Your task to perform on an android device: manage bookmarks in the chrome app Image 0: 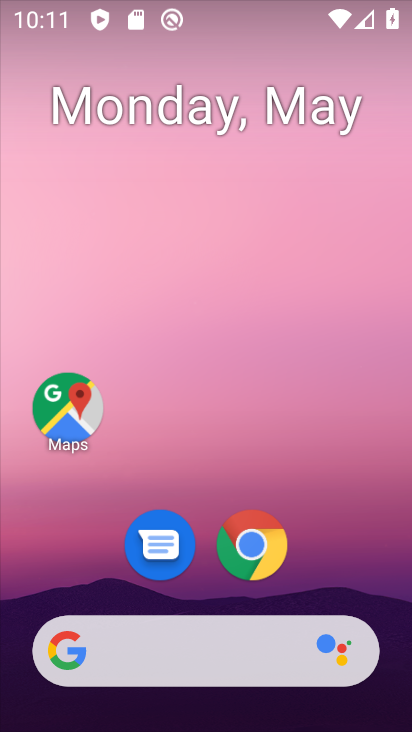
Step 0: click (243, 568)
Your task to perform on an android device: manage bookmarks in the chrome app Image 1: 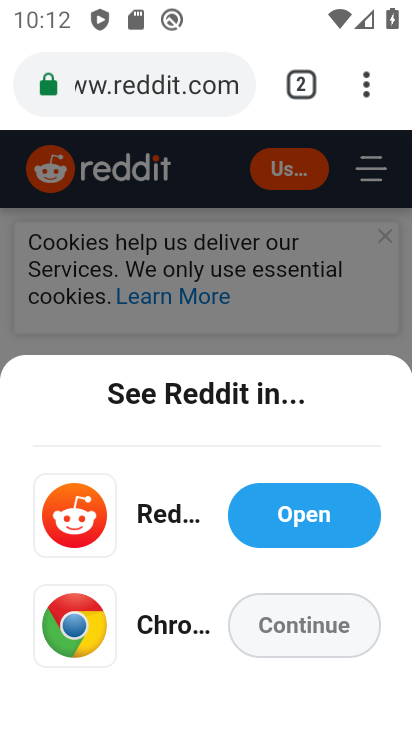
Step 1: click (275, 618)
Your task to perform on an android device: manage bookmarks in the chrome app Image 2: 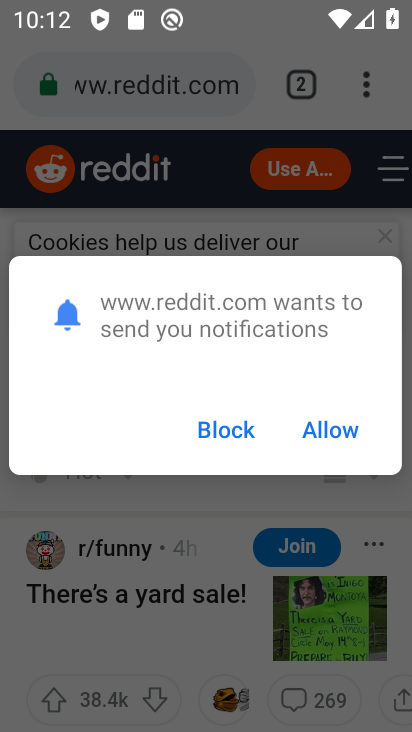
Step 2: click (330, 423)
Your task to perform on an android device: manage bookmarks in the chrome app Image 3: 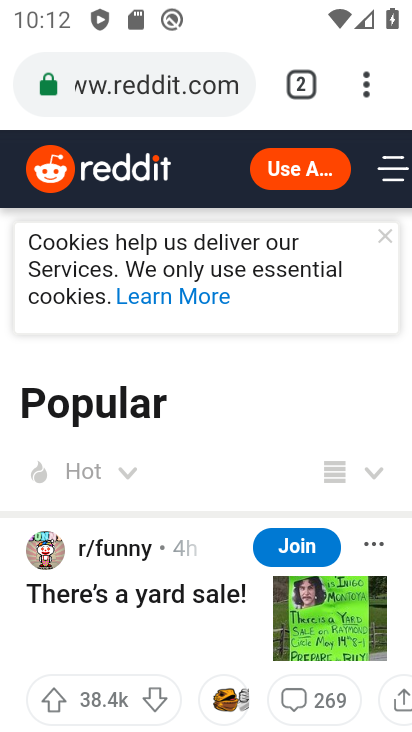
Step 3: click (371, 83)
Your task to perform on an android device: manage bookmarks in the chrome app Image 4: 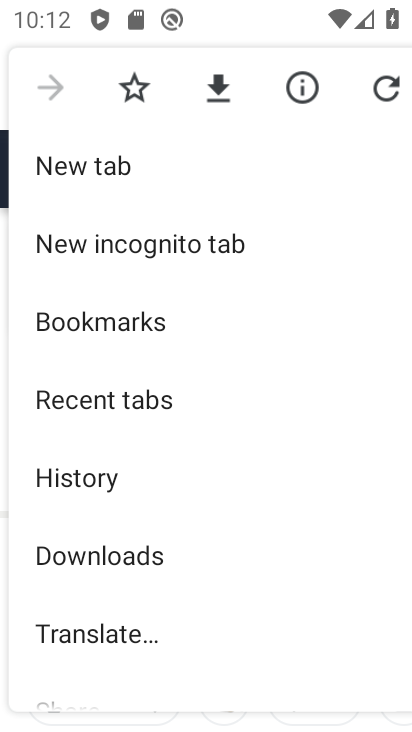
Step 4: click (153, 306)
Your task to perform on an android device: manage bookmarks in the chrome app Image 5: 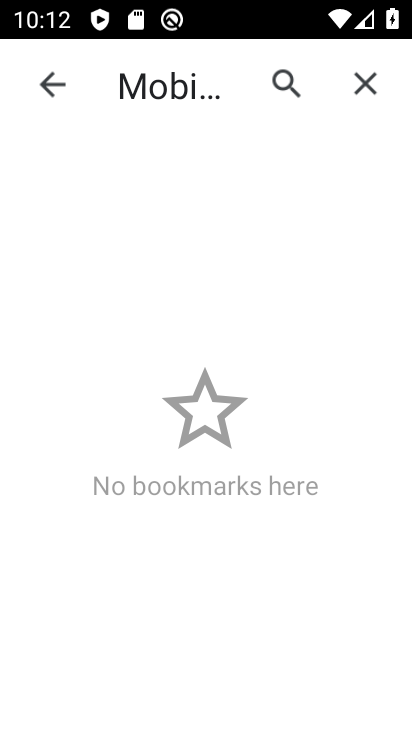
Step 5: task complete